Your task to perform on an android device: Go to Google maps Image 0: 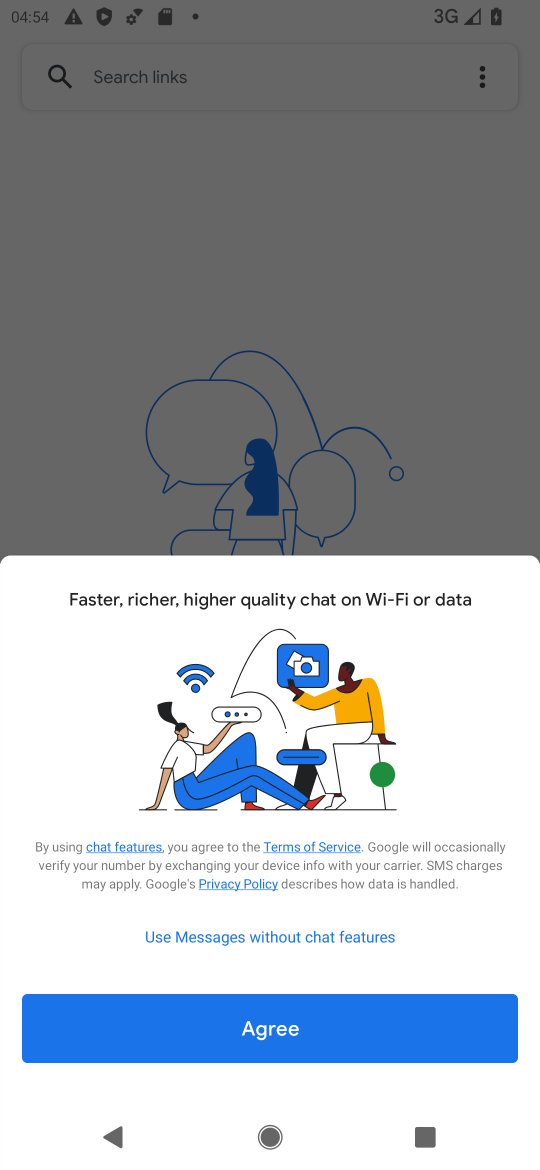
Step 0: press home button
Your task to perform on an android device: Go to Google maps Image 1: 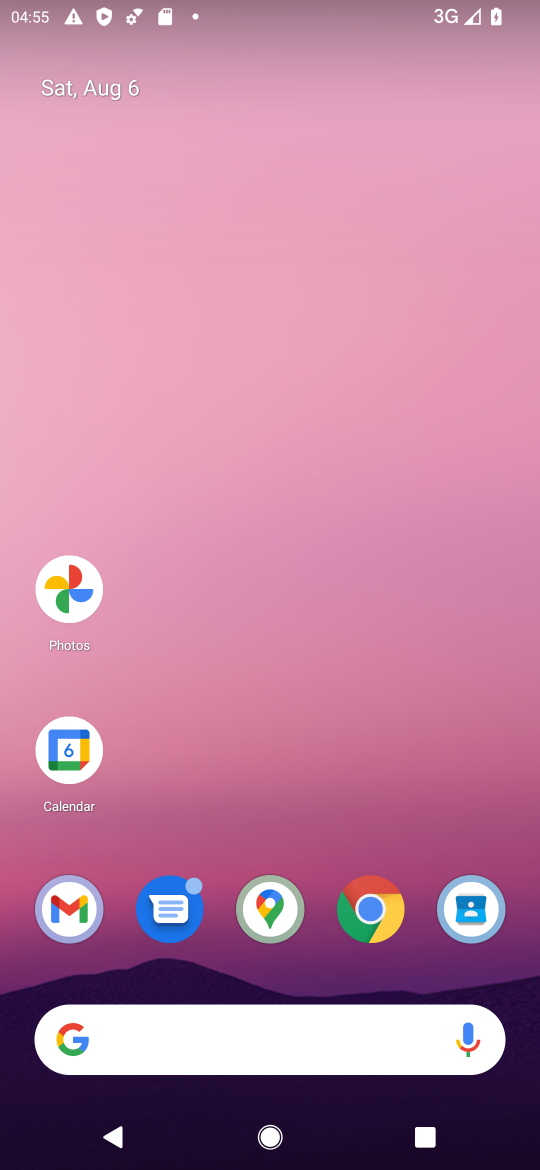
Step 1: click (260, 904)
Your task to perform on an android device: Go to Google maps Image 2: 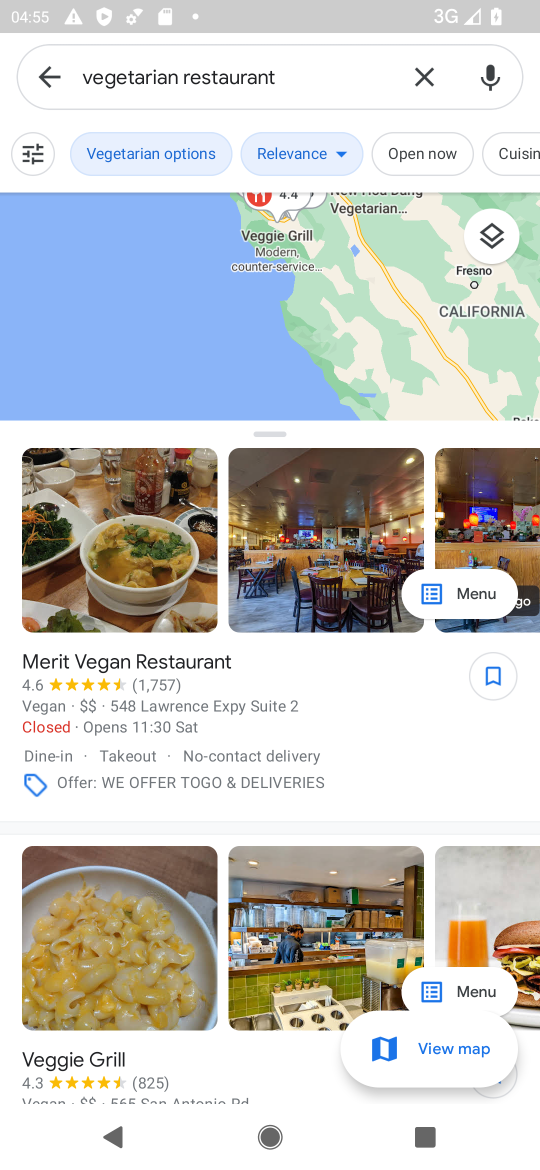
Step 2: click (415, 74)
Your task to perform on an android device: Go to Google maps Image 3: 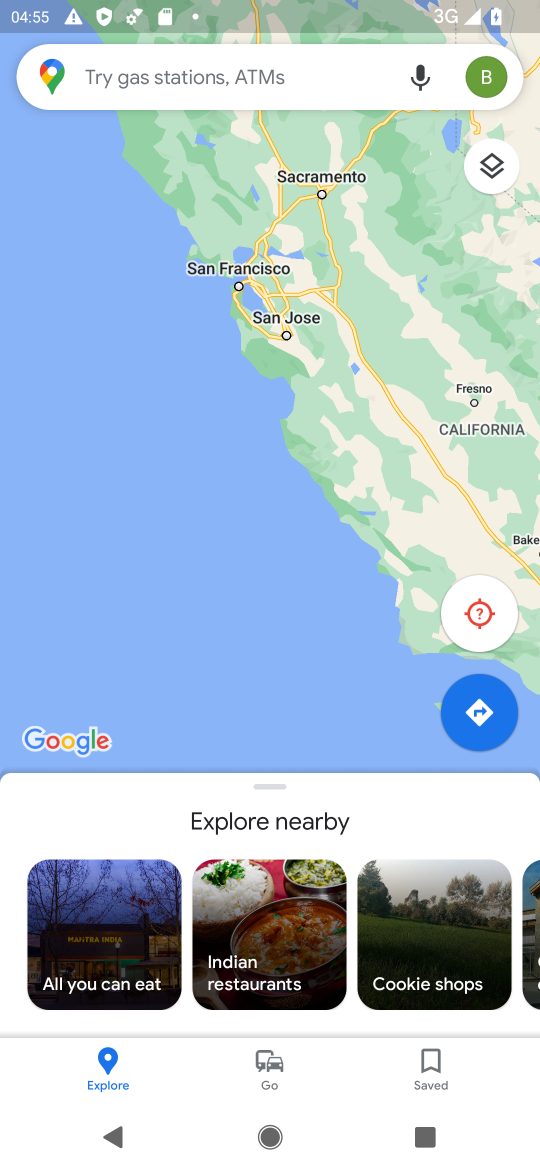
Step 3: task complete